Your task to perform on an android device: Search for sushi restaurants on Maps Image 0: 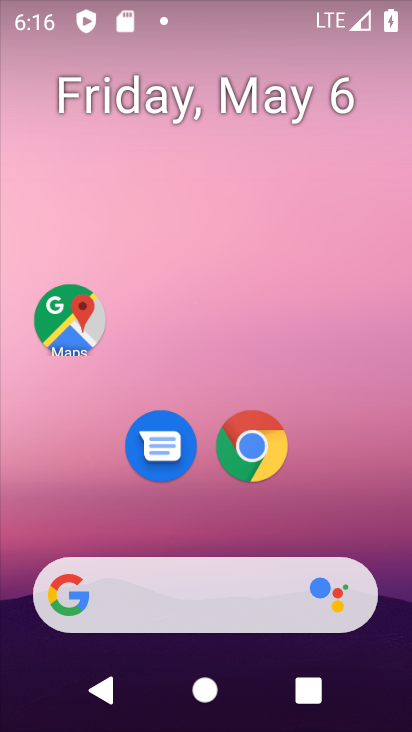
Step 0: drag from (323, 513) to (315, 135)
Your task to perform on an android device: Search for sushi restaurants on Maps Image 1: 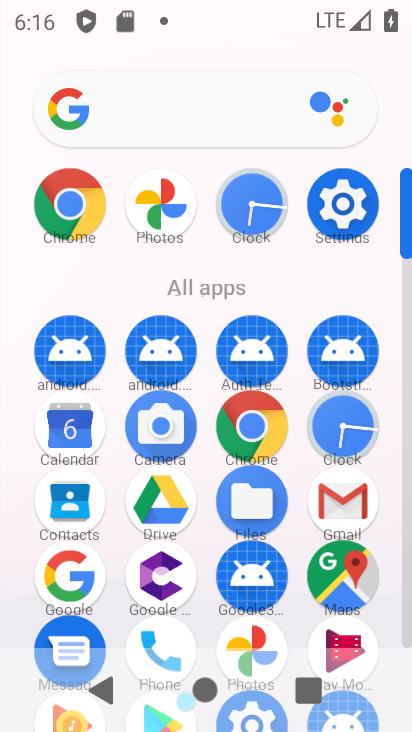
Step 1: click (365, 569)
Your task to perform on an android device: Search for sushi restaurants on Maps Image 2: 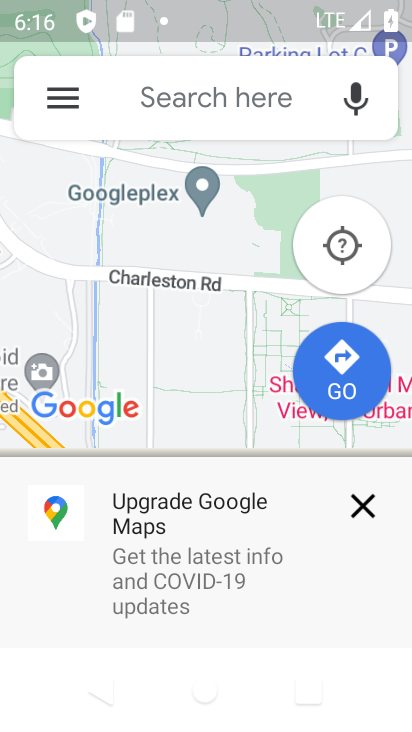
Step 2: click (244, 97)
Your task to perform on an android device: Search for sushi restaurants on Maps Image 3: 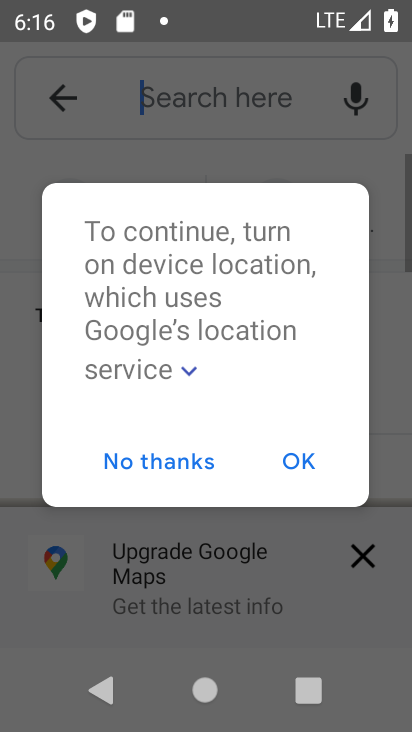
Step 3: click (307, 458)
Your task to perform on an android device: Search for sushi restaurants on Maps Image 4: 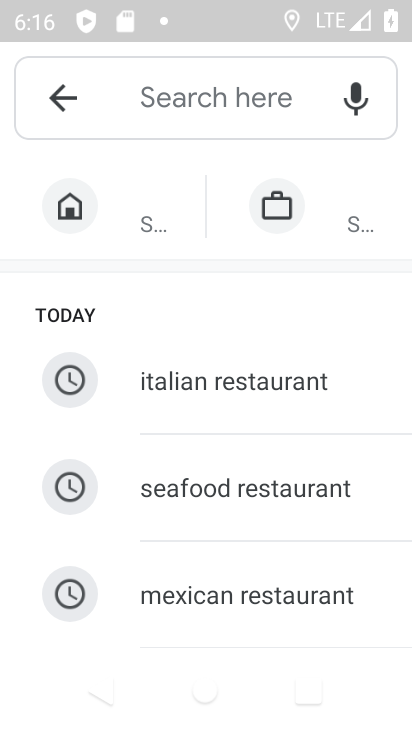
Step 4: drag from (230, 575) to (292, 232)
Your task to perform on an android device: Search for sushi restaurants on Maps Image 5: 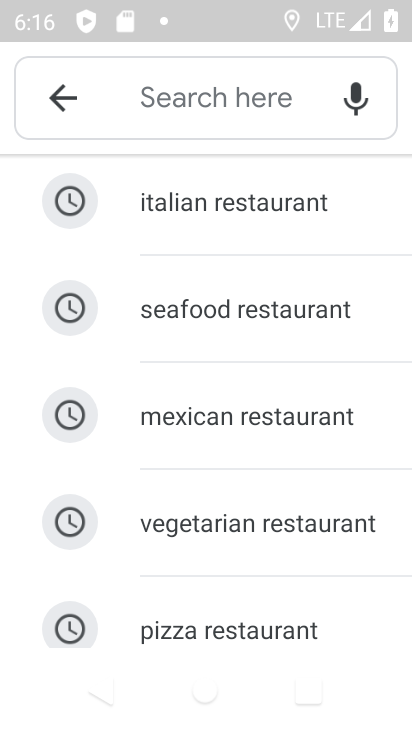
Step 5: drag from (218, 615) to (270, 345)
Your task to perform on an android device: Search for sushi restaurants on Maps Image 6: 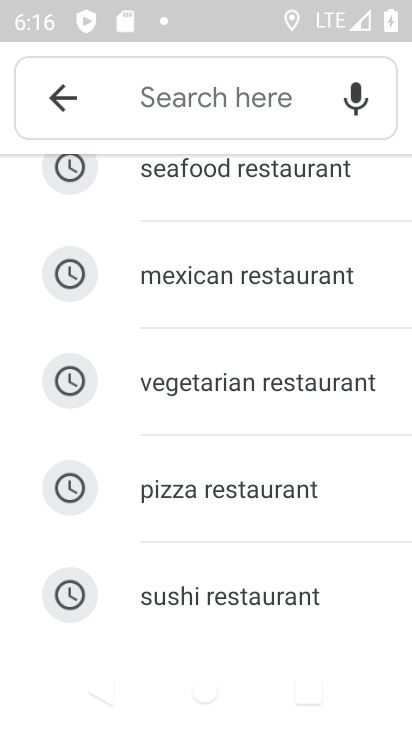
Step 6: click (206, 585)
Your task to perform on an android device: Search for sushi restaurants on Maps Image 7: 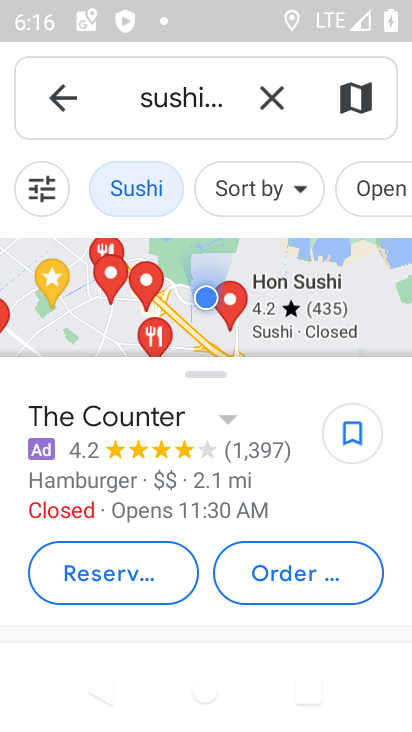
Step 7: task complete